Your task to perform on an android device: Show the shopping cart on costco.com. Search for panasonic triple a on costco.com, select the first entry, add it to the cart, then select checkout. Image 0: 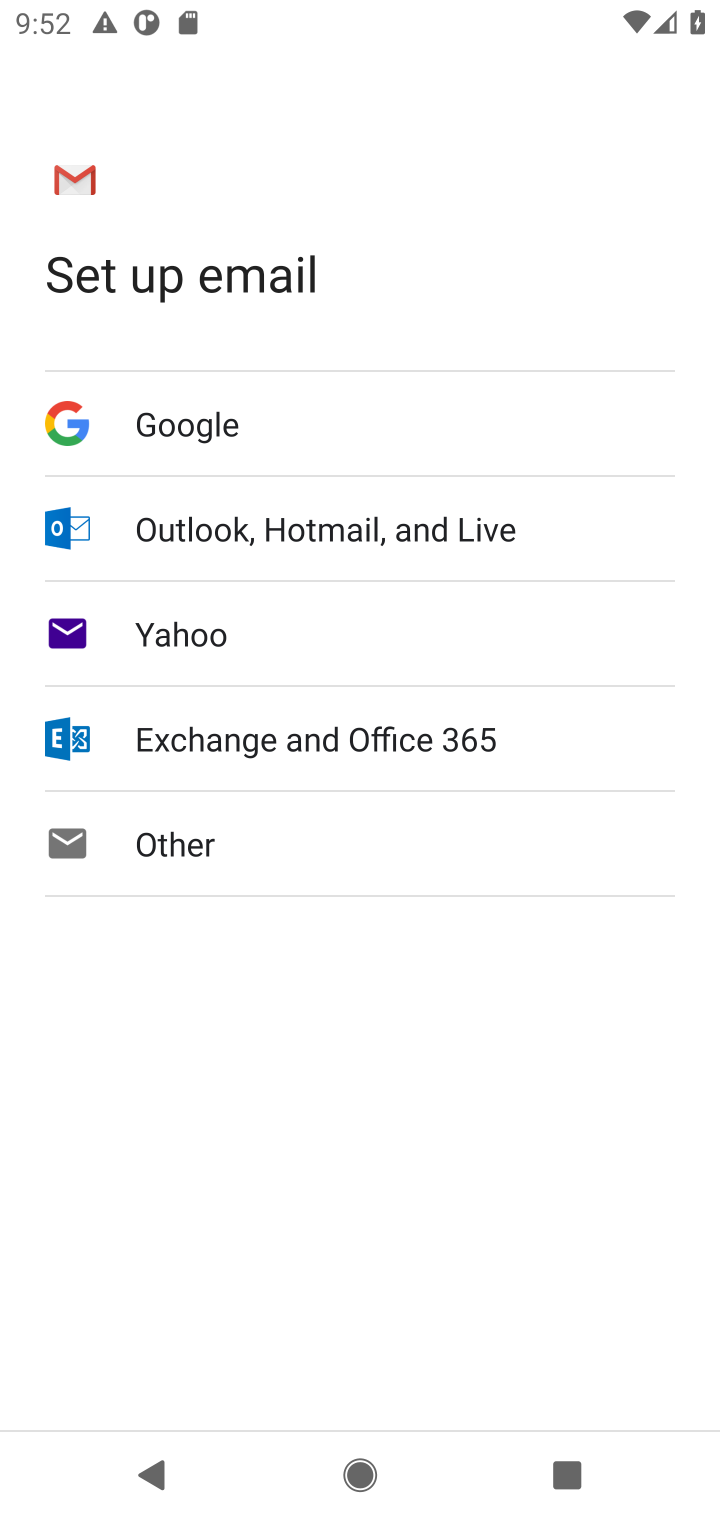
Step 0: press home button
Your task to perform on an android device: Show the shopping cart on costco.com. Search for panasonic triple a on costco.com, select the first entry, add it to the cart, then select checkout. Image 1: 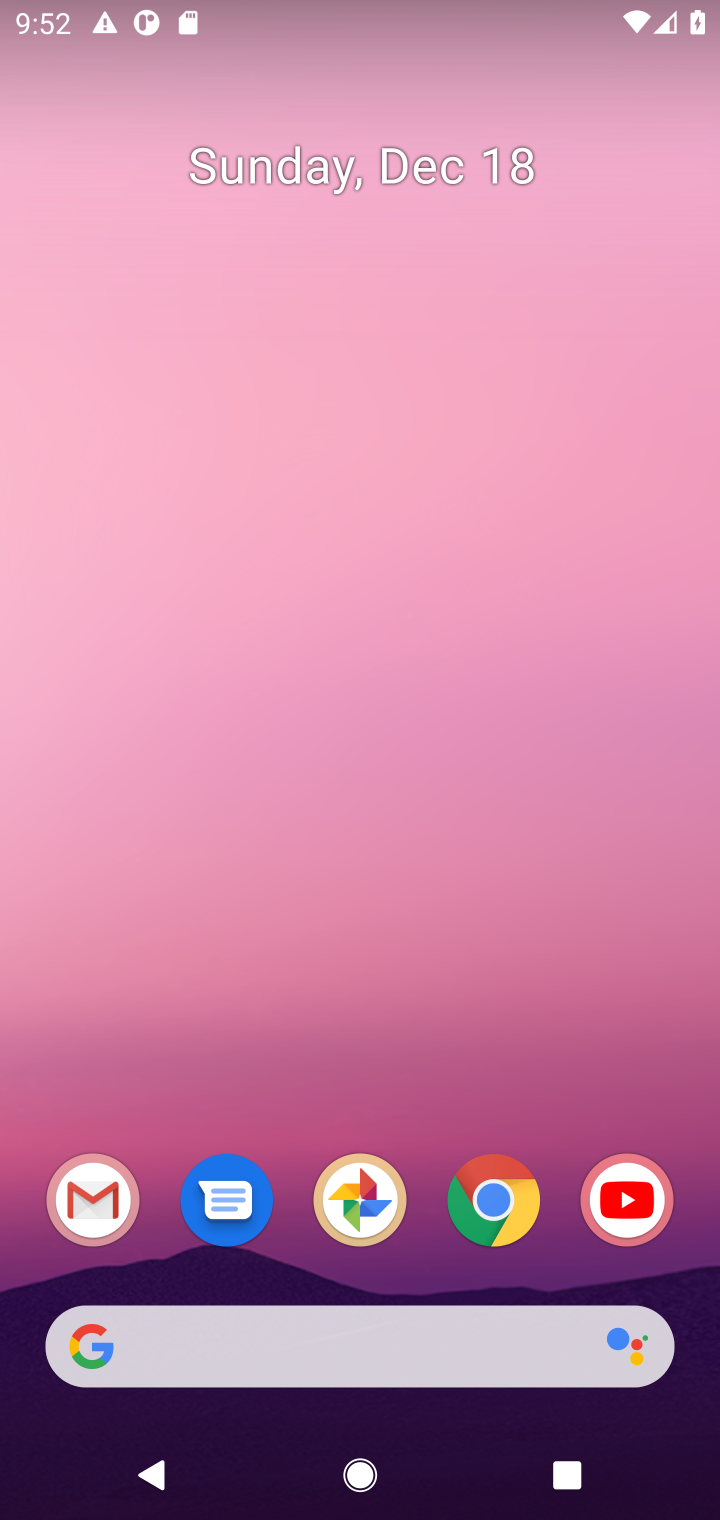
Step 1: click (505, 1208)
Your task to perform on an android device: Show the shopping cart on costco.com. Search for panasonic triple a on costco.com, select the first entry, add it to the cart, then select checkout. Image 2: 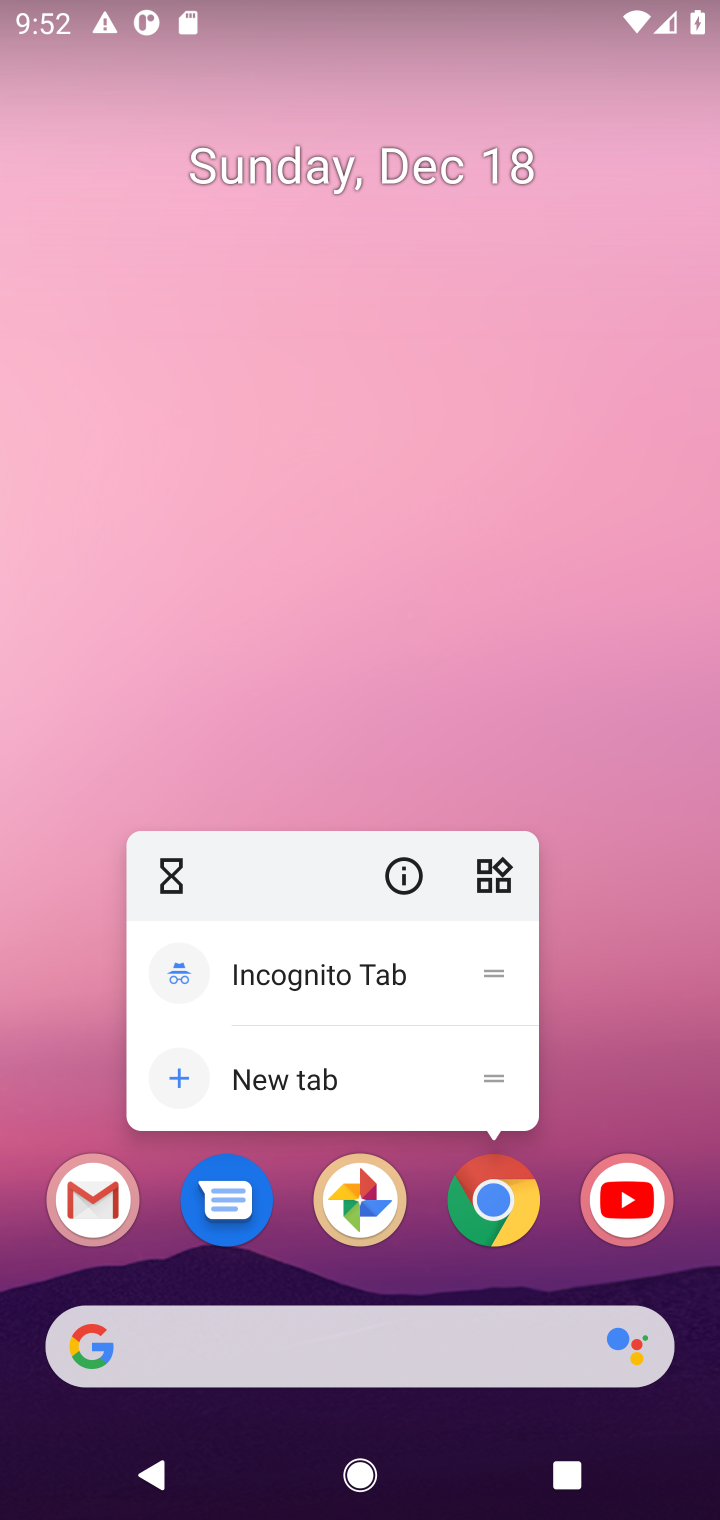
Step 2: click (505, 1208)
Your task to perform on an android device: Show the shopping cart on costco.com. Search for panasonic triple a on costco.com, select the first entry, add it to the cart, then select checkout. Image 3: 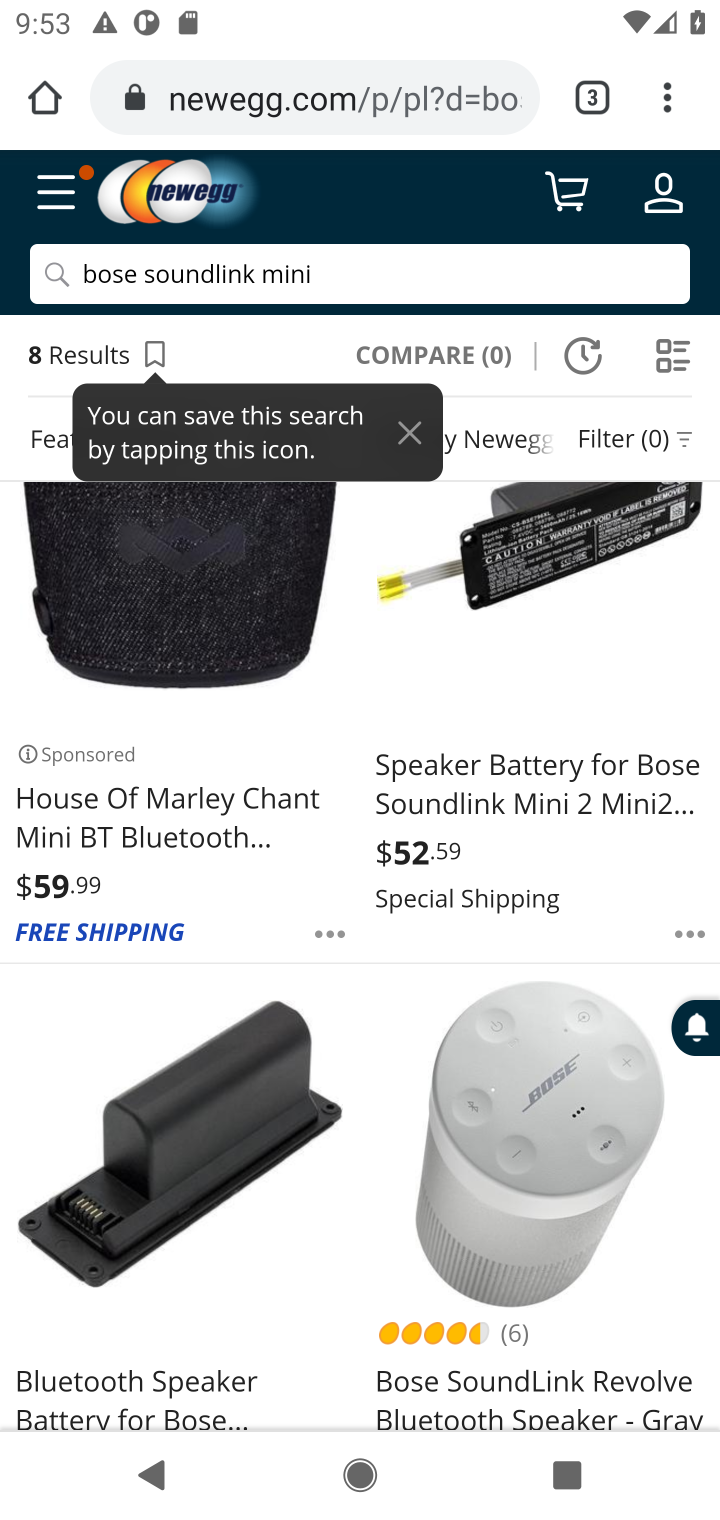
Step 3: click (242, 91)
Your task to perform on an android device: Show the shopping cart on costco.com. Search for panasonic triple a on costco.com, select the first entry, add it to the cart, then select checkout. Image 4: 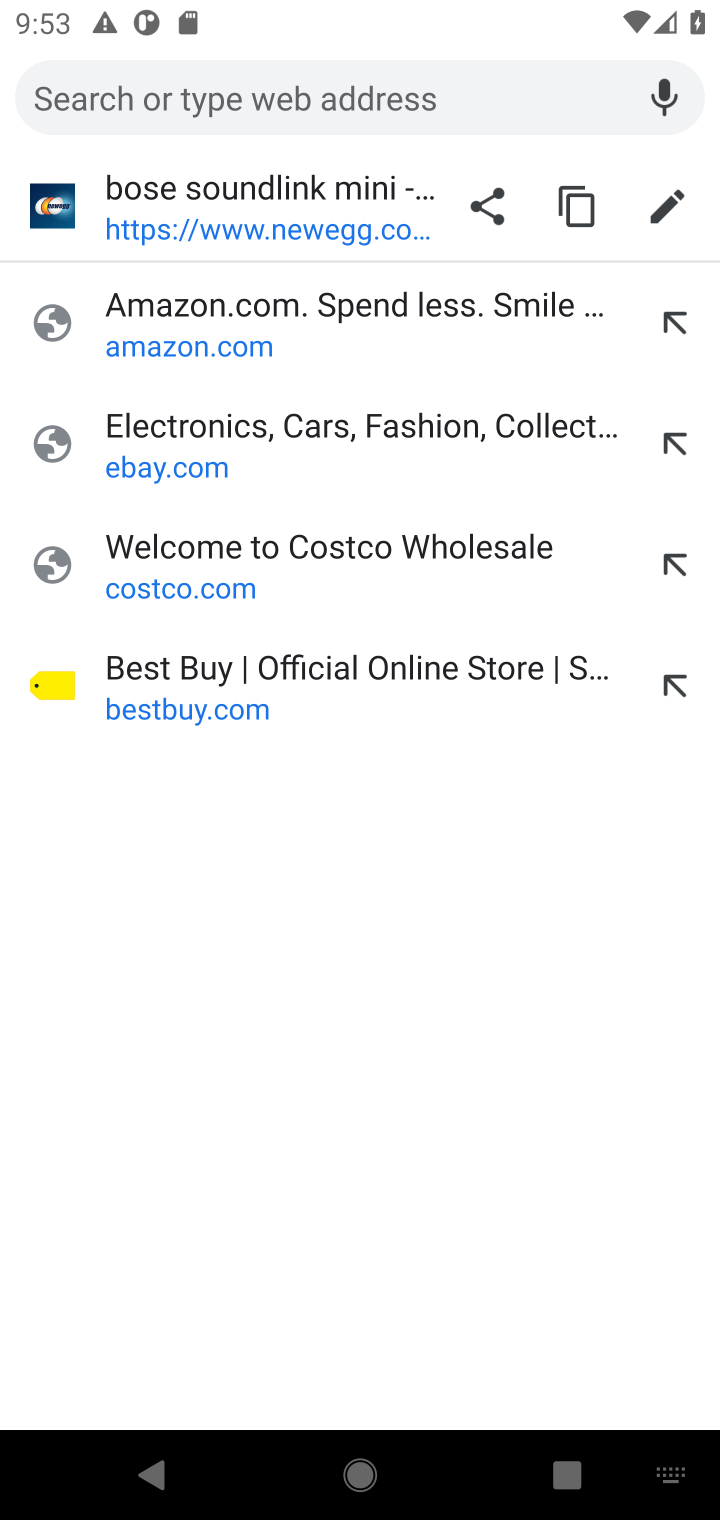
Step 4: click (164, 565)
Your task to perform on an android device: Show the shopping cart on costco.com. Search for panasonic triple a on costco.com, select the first entry, add it to the cart, then select checkout. Image 5: 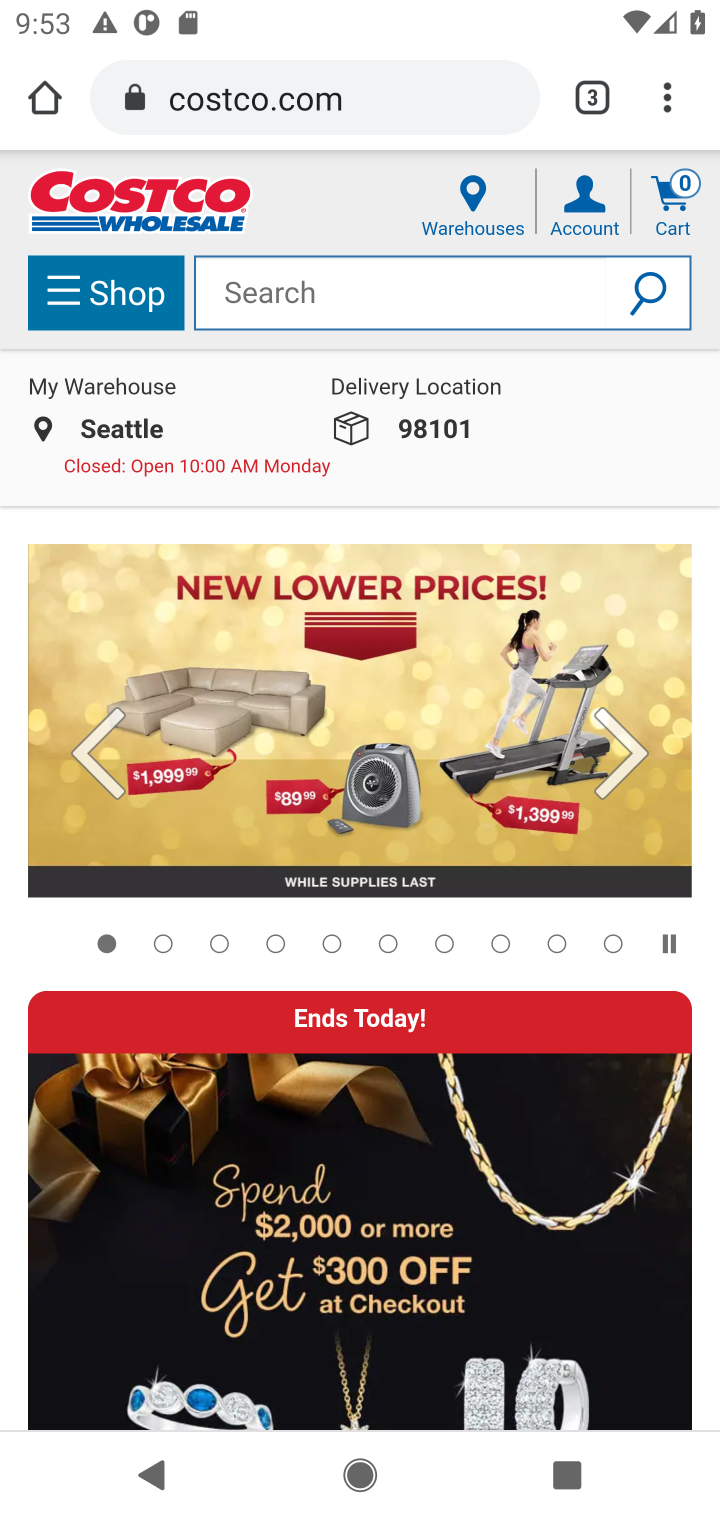
Step 5: click (677, 223)
Your task to perform on an android device: Show the shopping cart on costco.com. Search for panasonic triple a on costco.com, select the first entry, add it to the cart, then select checkout. Image 6: 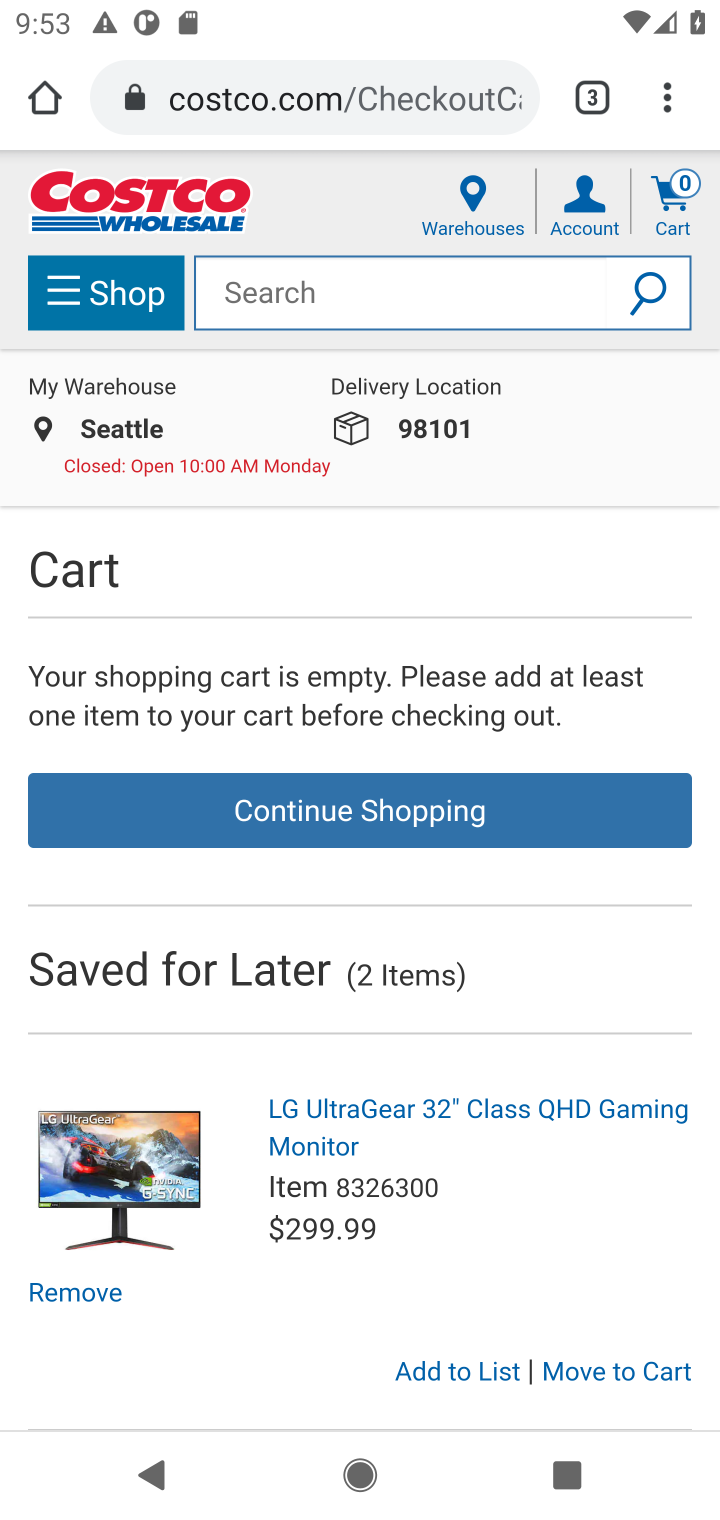
Step 6: click (276, 286)
Your task to perform on an android device: Show the shopping cart on costco.com. Search for panasonic triple a on costco.com, select the first entry, add it to the cart, then select checkout. Image 7: 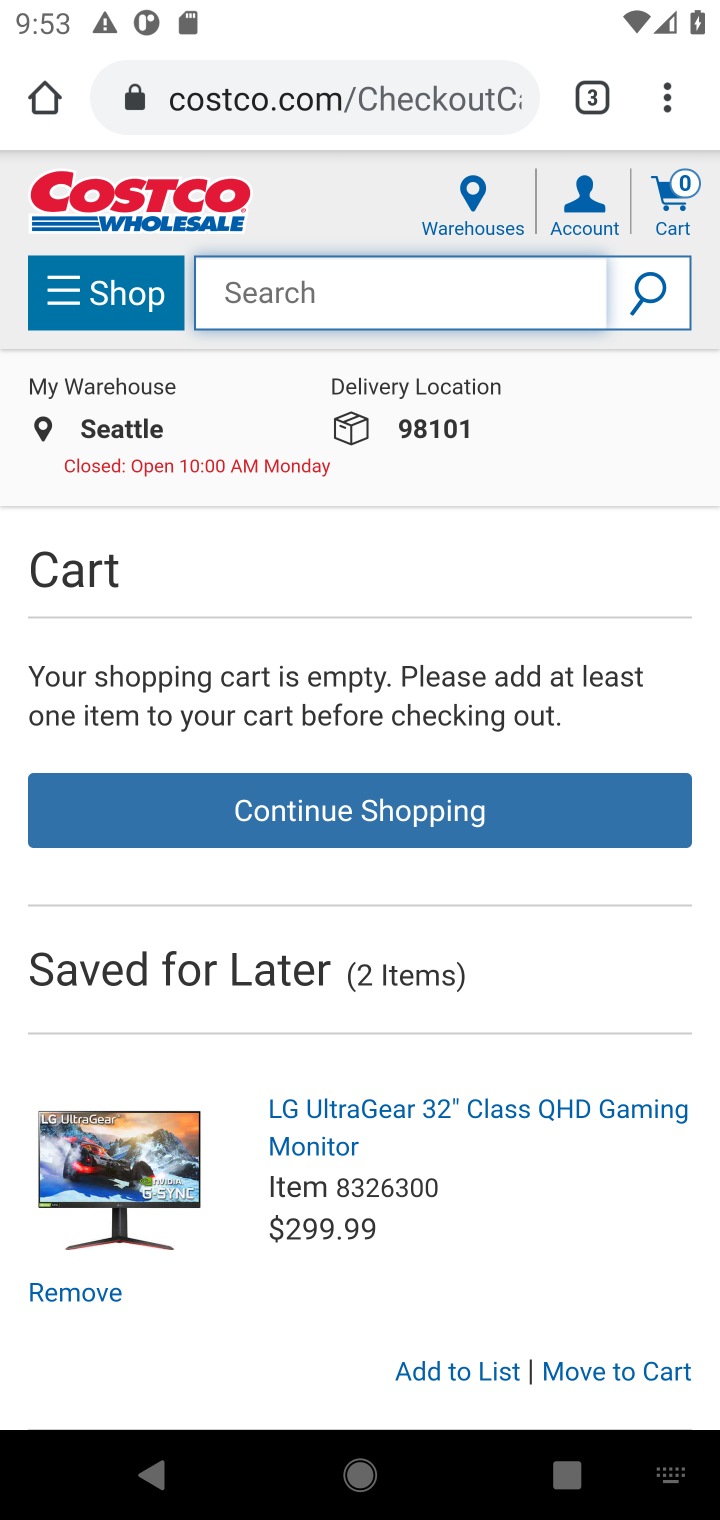
Step 7: type "panasonic triple a"
Your task to perform on an android device: Show the shopping cart on costco.com. Search for panasonic triple a on costco.com, select the first entry, add it to the cart, then select checkout. Image 8: 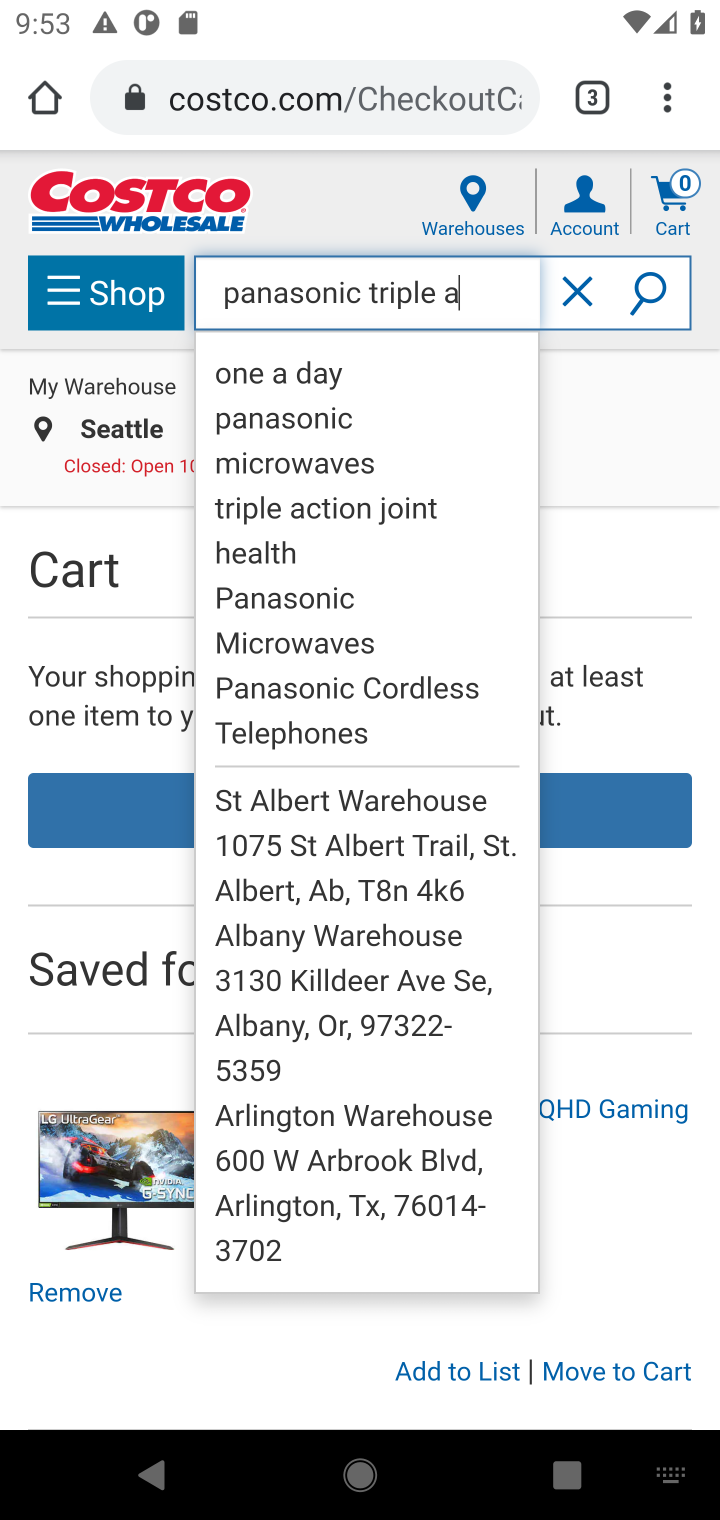
Step 8: click (651, 288)
Your task to perform on an android device: Show the shopping cart on costco.com. Search for panasonic triple a on costco.com, select the first entry, add it to the cart, then select checkout. Image 9: 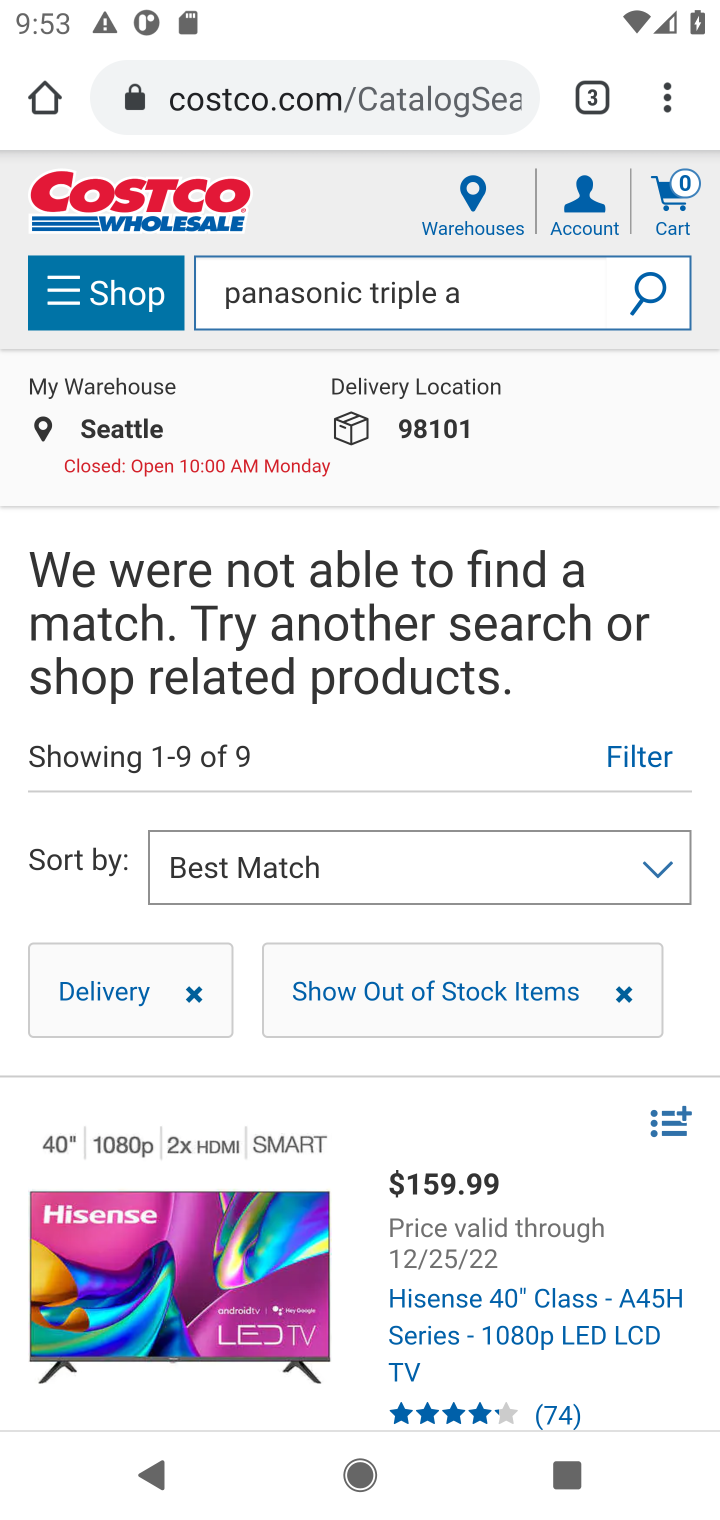
Step 9: task complete